Your task to perform on an android device: turn off airplane mode Image 0: 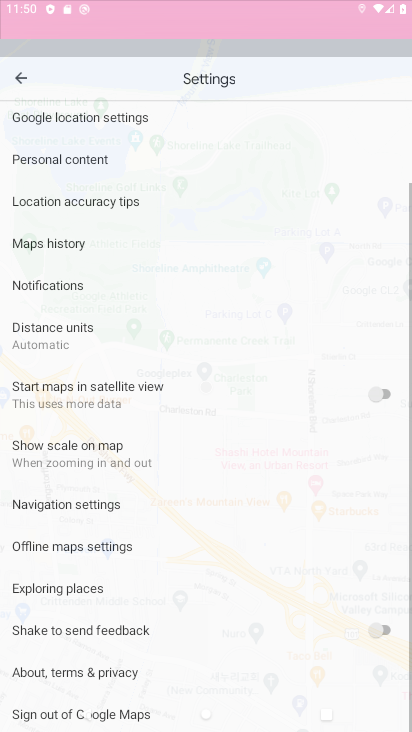
Step 0: click (127, 252)
Your task to perform on an android device: turn off airplane mode Image 1: 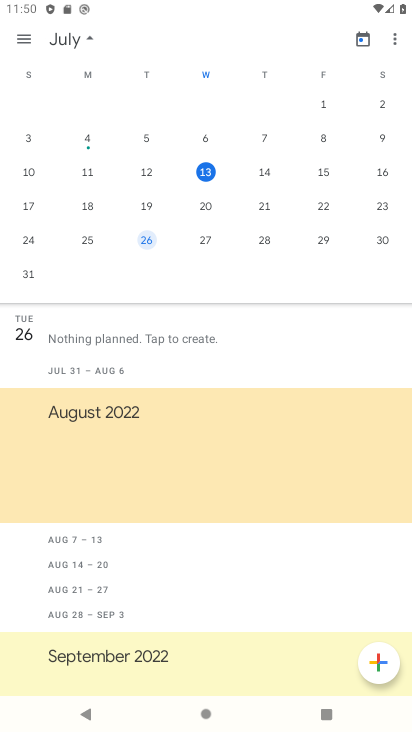
Step 1: drag from (272, 542) to (266, 99)
Your task to perform on an android device: turn off airplane mode Image 2: 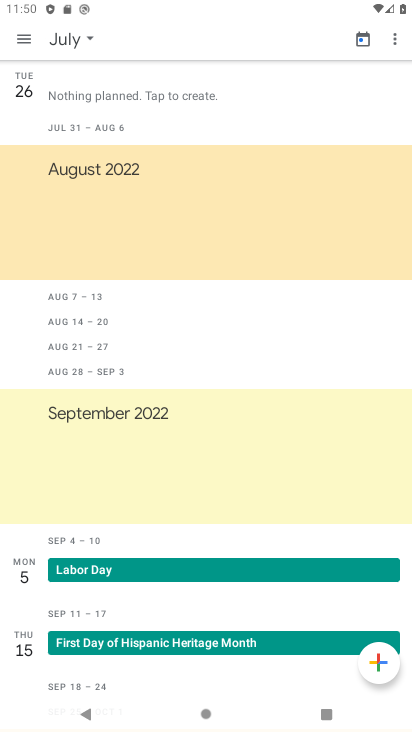
Step 2: press home button
Your task to perform on an android device: turn off airplane mode Image 3: 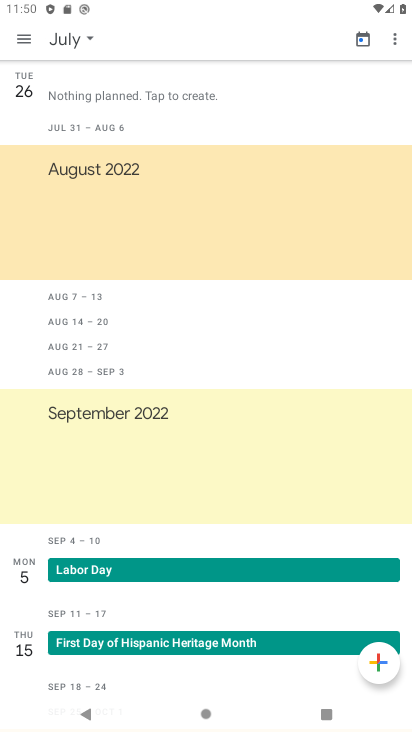
Step 3: press home button
Your task to perform on an android device: turn off airplane mode Image 4: 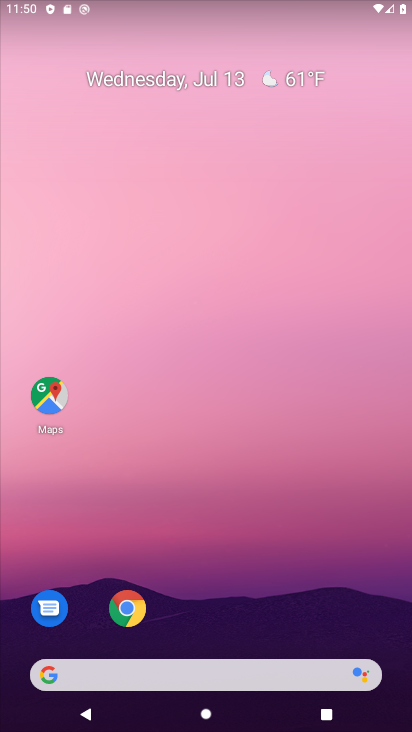
Step 4: drag from (175, 586) to (184, 304)
Your task to perform on an android device: turn off airplane mode Image 5: 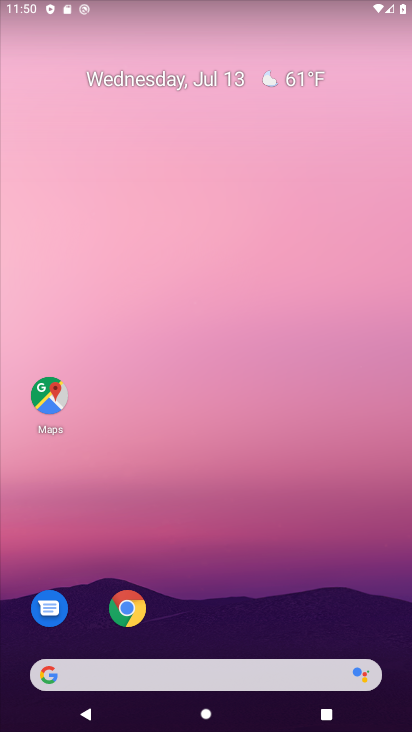
Step 5: drag from (199, 581) to (227, 247)
Your task to perform on an android device: turn off airplane mode Image 6: 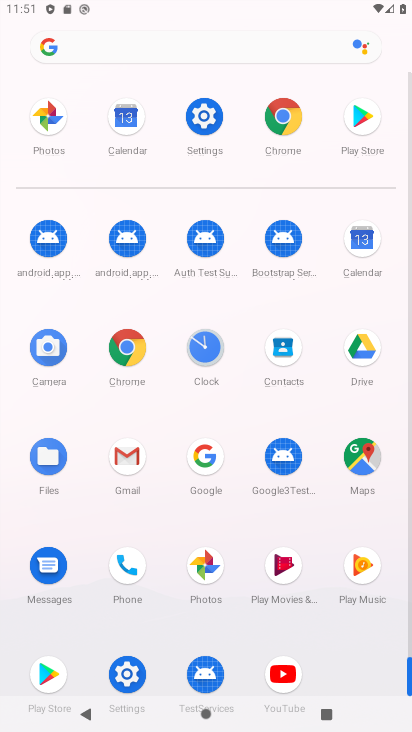
Step 6: click (201, 116)
Your task to perform on an android device: turn off airplane mode Image 7: 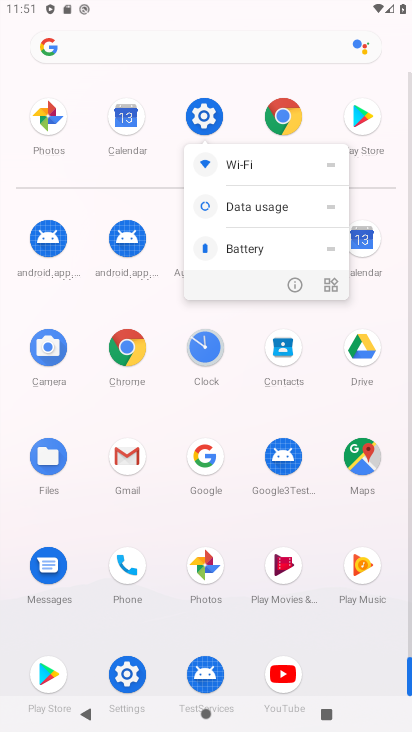
Step 7: click (287, 284)
Your task to perform on an android device: turn off airplane mode Image 8: 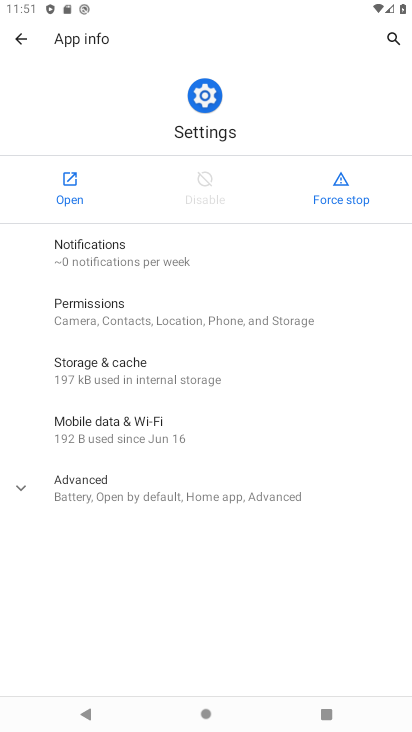
Step 8: click (74, 179)
Your task to perform on an android device: turn off airplane mode Image 9: 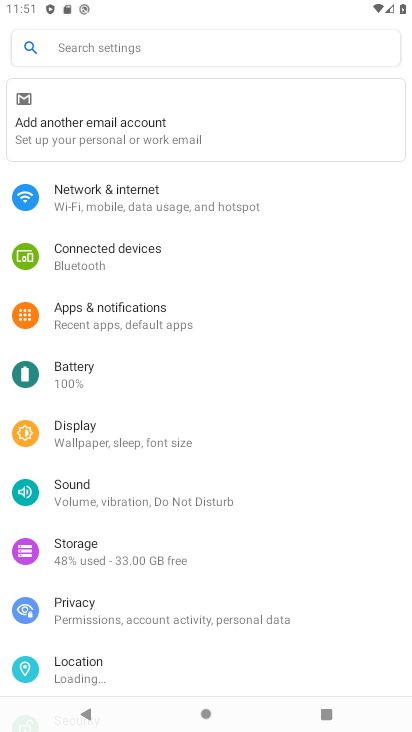
Step 9: click (114, 191)
Your task to perform on an android device: turn off airplane mode Image 10: 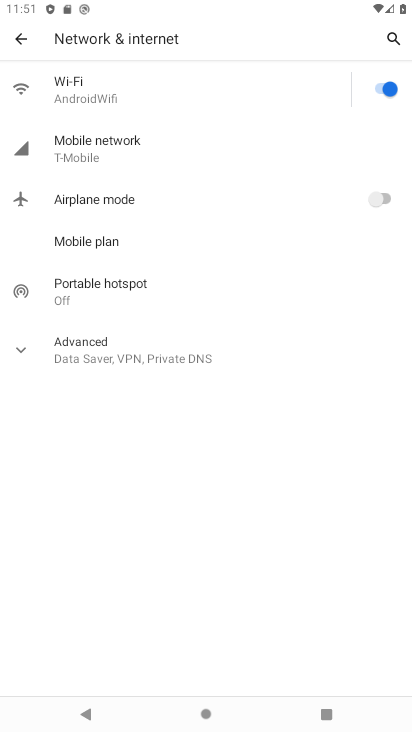
Step 10: click (130, 92)
Your task to perform on an android device: turn off airplane mode Image 11: 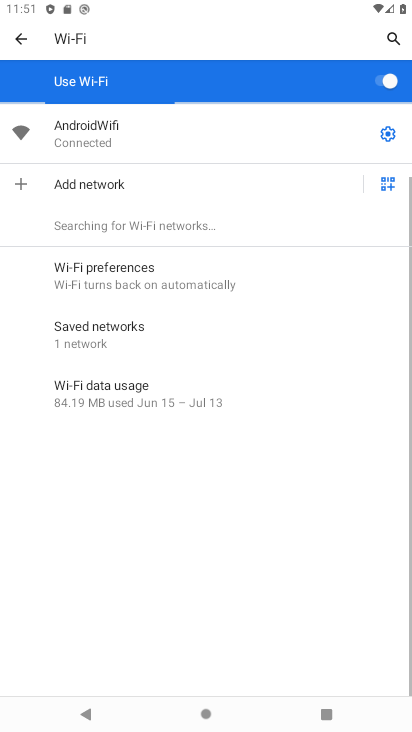
Step 11: click (26, 38)
Your task to perform on an android device: turn off airplane mode Image 12: 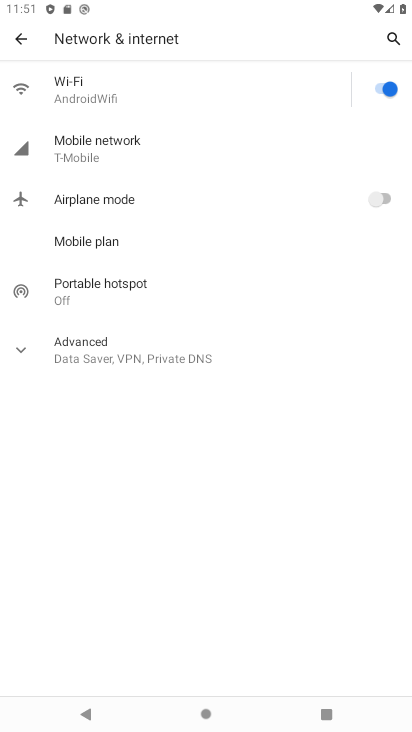
Step 12: task complete